Your task to perform on an android device: Open battery settings Image 0: 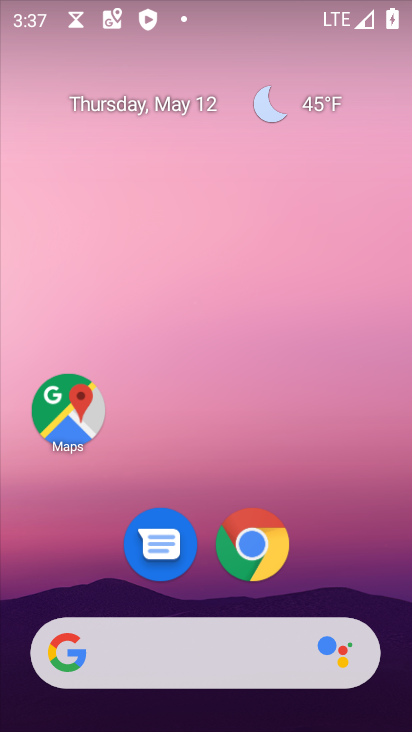
Step 0: drag from (328, 596) to (240, 27)
Your task to perform on an android device: Open battery settings Image 1: 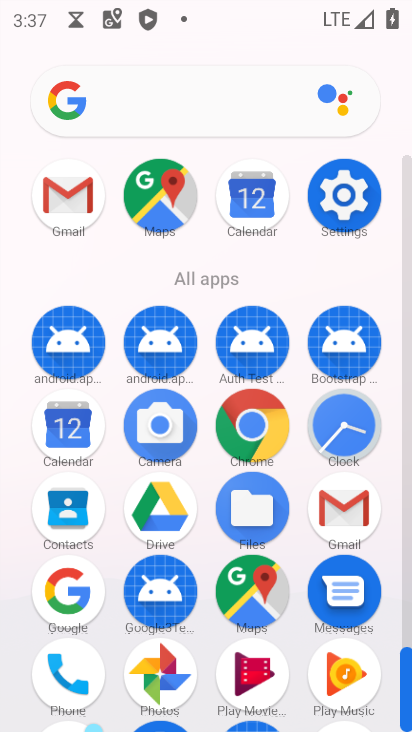
Step 1: click (349, 195)
Your task to perform on an android device: Open battery settings Image 2: 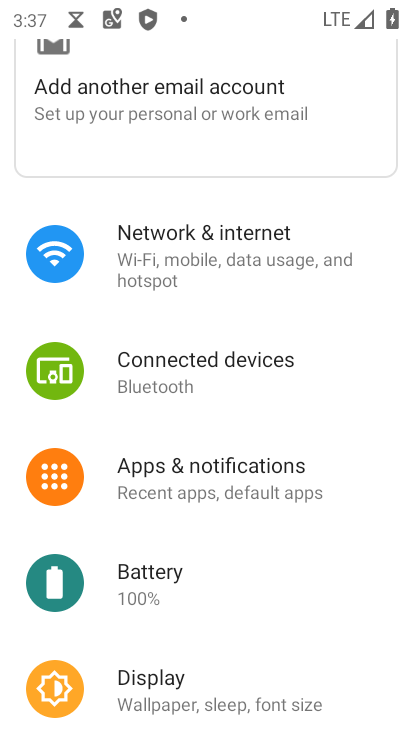
Step 2: drag from (233, 582) to (226, 263)
Your task to perform on an android device: Open battery settings Image 3: 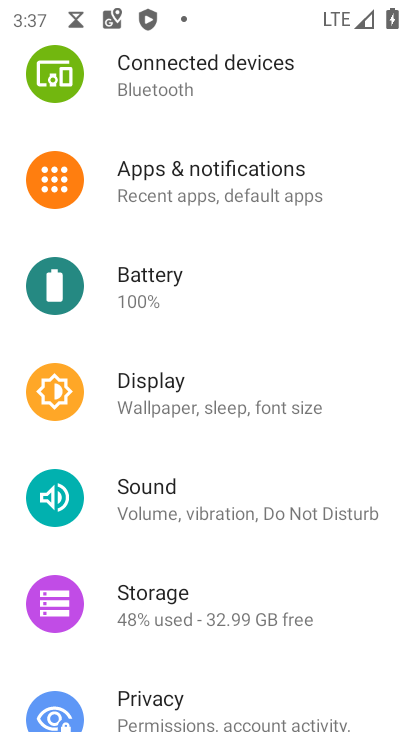
Step 3: drag from (215, 638) to (225, 256)
Your task to perform on an android device: Open battery settings Image 4: 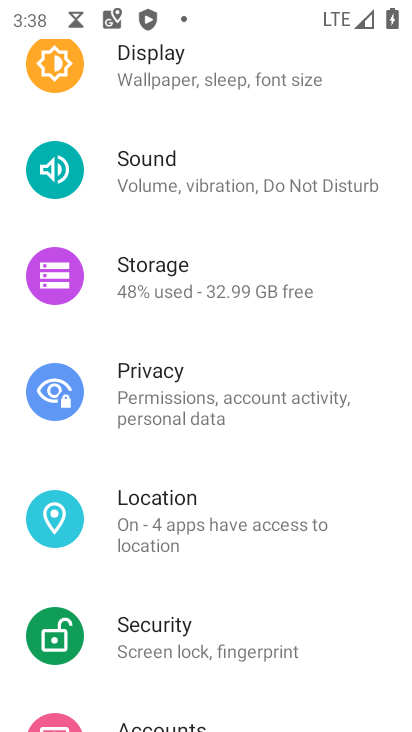
Step 4: drag from (226, 156) to (364, 656)
Your task to perform on an android device: Open battery settings Image 5: 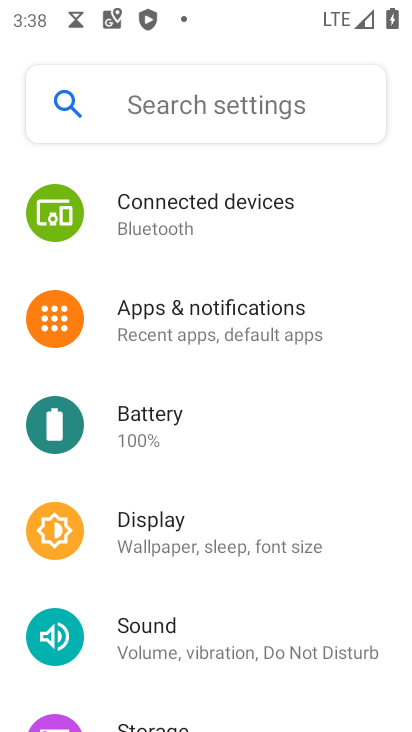
Step 5: click (176, 439)
Your task to perform on an android device: Open battery settings Image 6: 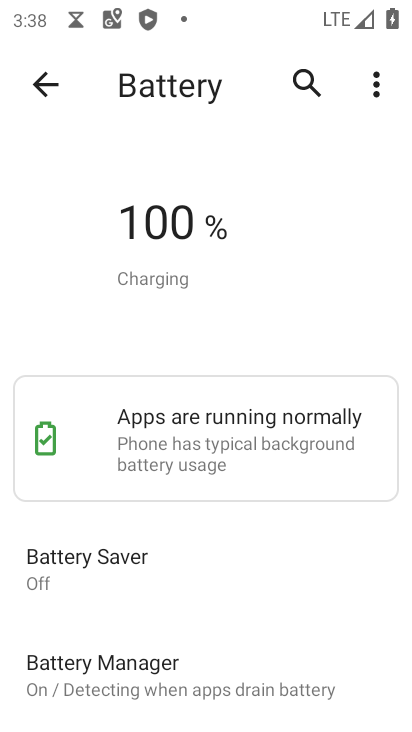
Step 6: task complete